Your task to perform on an android device: Open location settings Image 0: 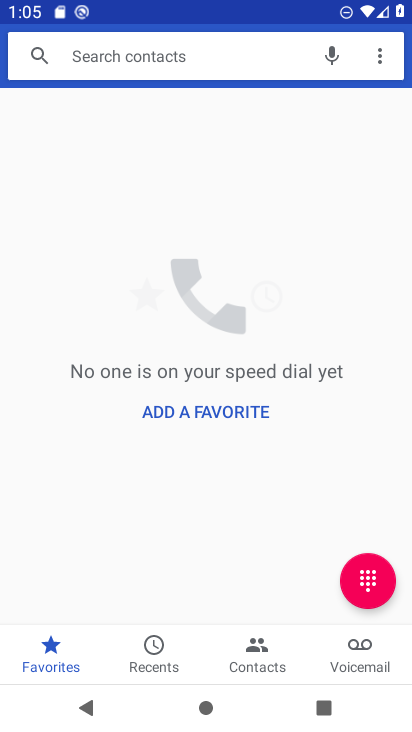
Step 0: press home button
Your task to perform on an android device: Open location settings Image 1: 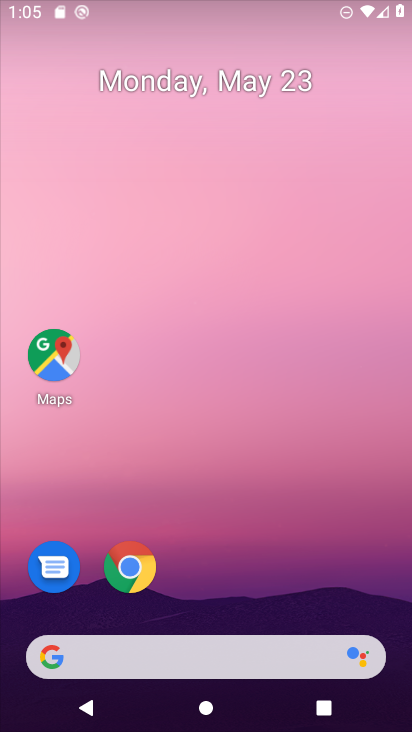
Step 1: drag from (250, 560) to (349, 267)
Your task to perform on an android device: Open location settings Image 2: 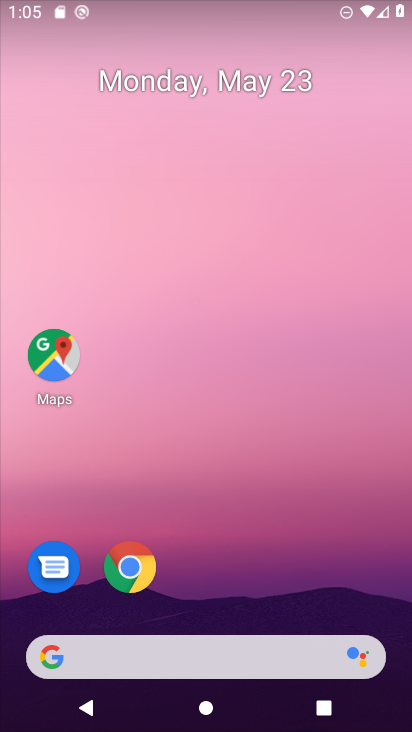
Step 2: drag from (302, 575) to (315, 26)
Your task to perform on an android device: Open location settings Image 3: 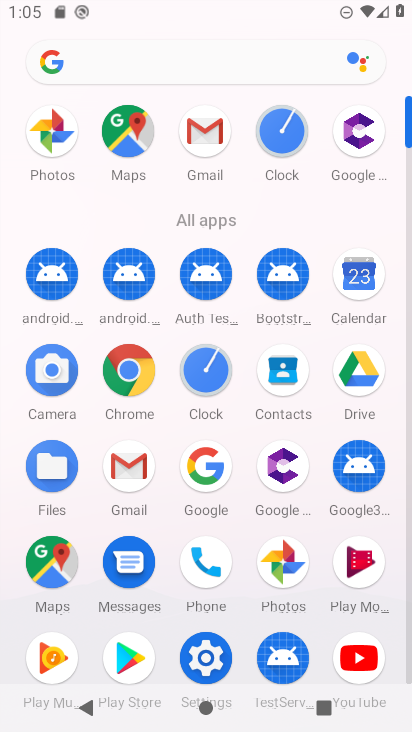
Step 3: click (198, 637)
Your task to perform on an android device: Open location settings Image 4: 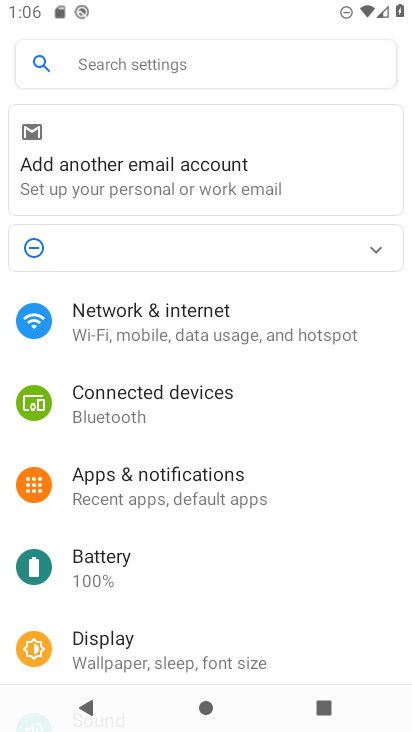
Step 4: drag from (198, 582) to (183, 104)
Your task to perform on an android device: Open location settings Image 5: 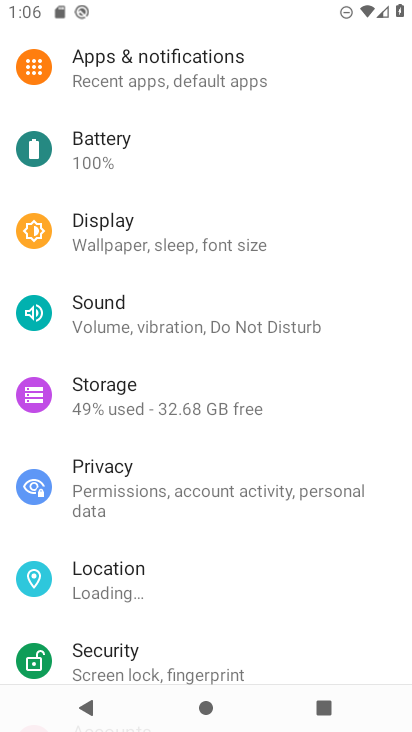
Step 5: click (129, 584)
Your task to perform on an android device: Open location settings Image 6: 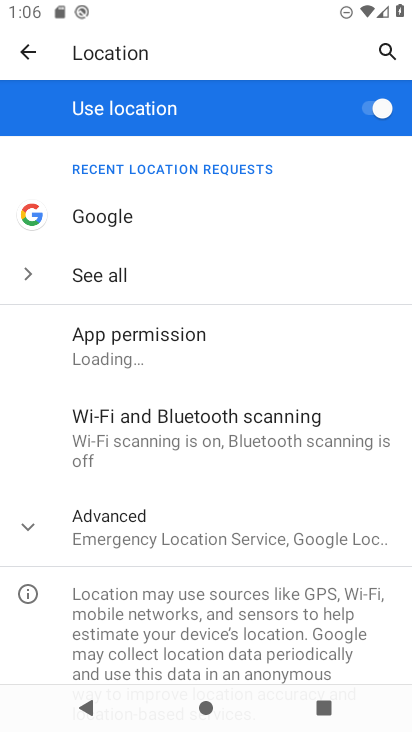
Step 6: task complete